Your task to perform on an android device: add a contact Image 0: 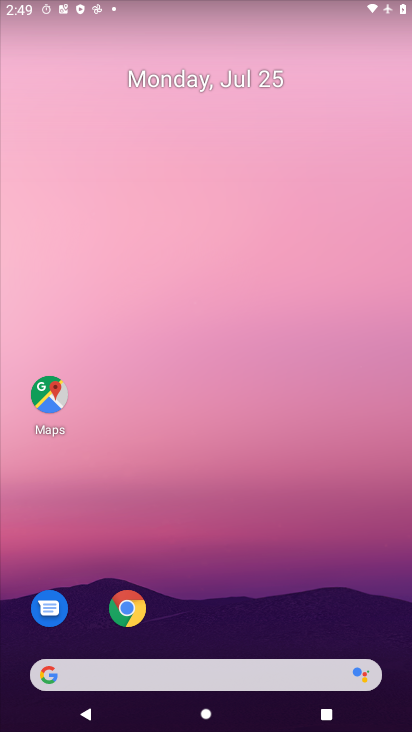
Step 0: drag from (284, 646) to (347, 195)
Your task to perform on an android device: add a contact Image 1: 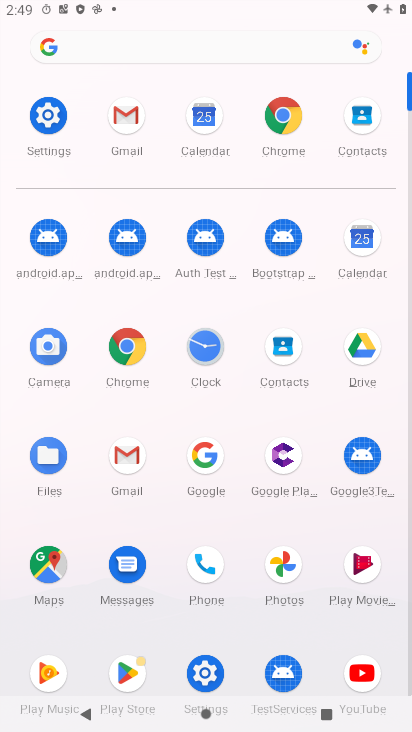
Step 1: click (285, 357)
Your task to perform on an android device: add a contact Image 2: 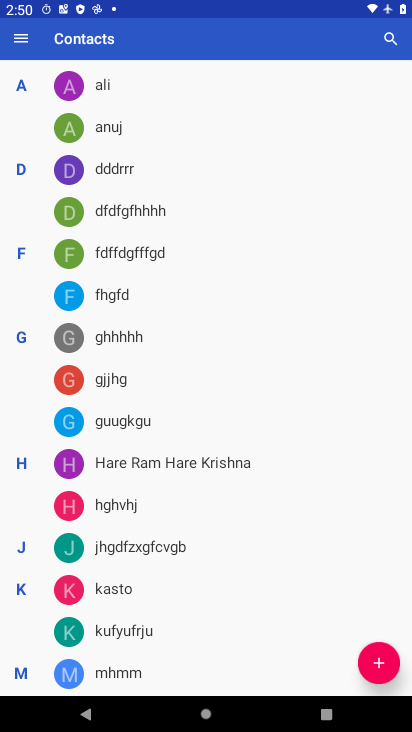
Step 2: click (383, 659)
Your task to perform on an android device: add a contact Image 3: 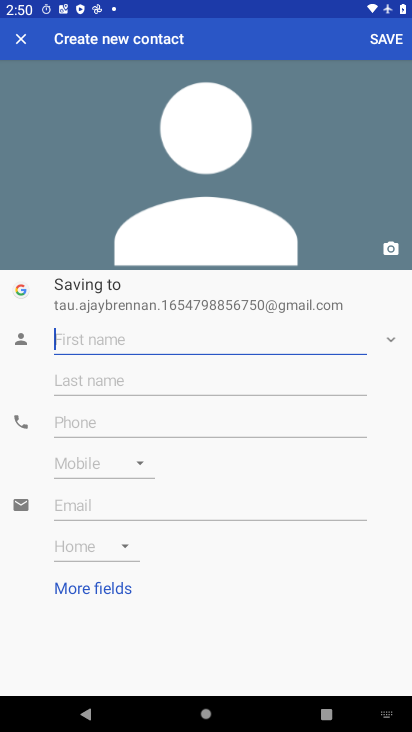
Step 3: type "tyukjhxcfvg"
Your task to perform on an android device: add a contact Image 4: 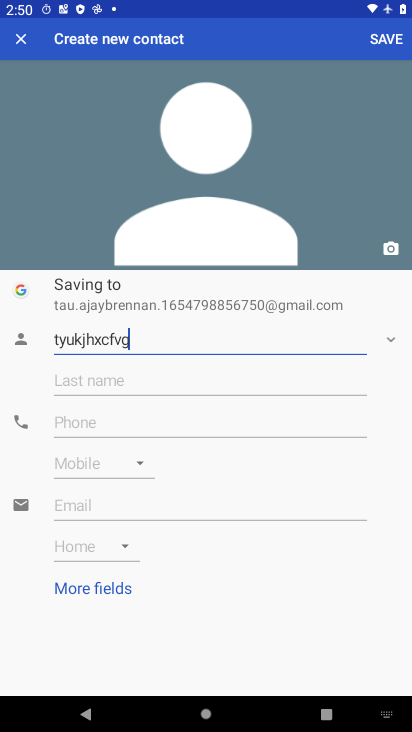
Step 4: click (233, 425)
Your task to perform on an android device: add a contact Image 5: 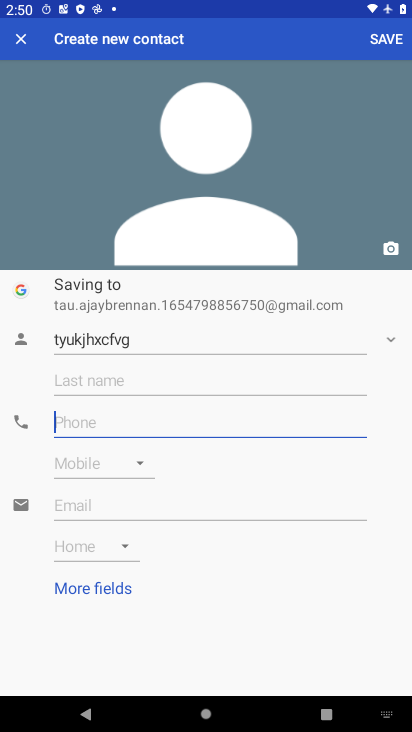
Step 5: type "9876545678"
Your task to perform on an android device: add a contact Image 6: 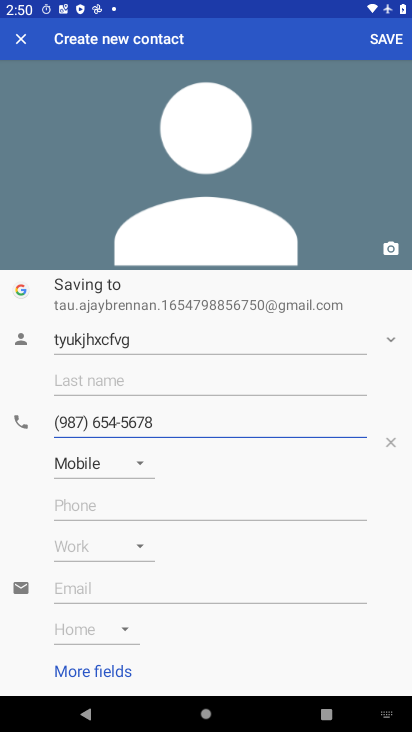
Step 6: click (388, 52)
Your task to perform on an android device: add a contact Image 7: 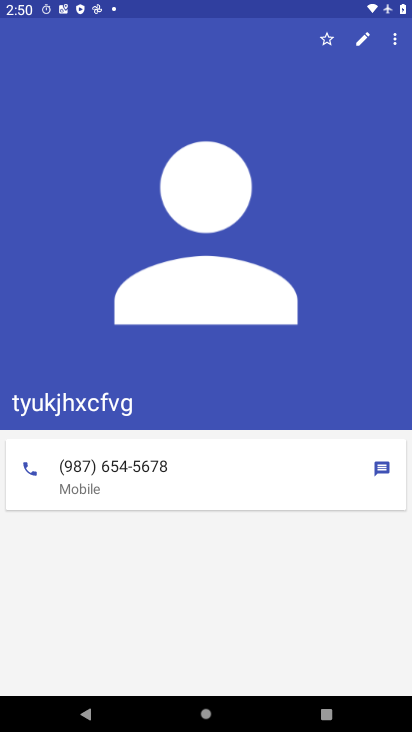
Step 7: task complete